Your task to perform on an android device: Is it going to rain tomorrow? Image 0: 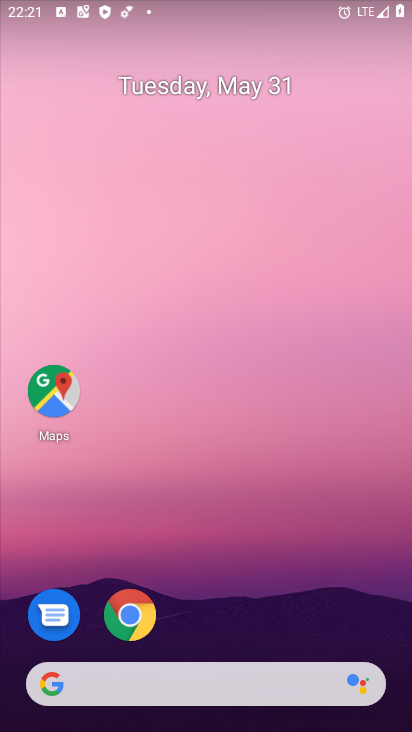
Step 0: drag from (14, 206) to (321, 257)
Your task to perform on an android device: Is it going to rain tomorrow? Image 1: 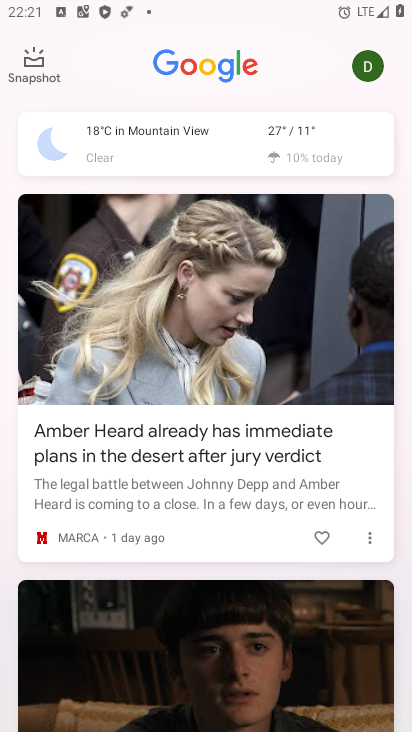
Step 1: click (305, 140)
Your task to perform on an android device: Is it going to rain tomorrow? Image 2: 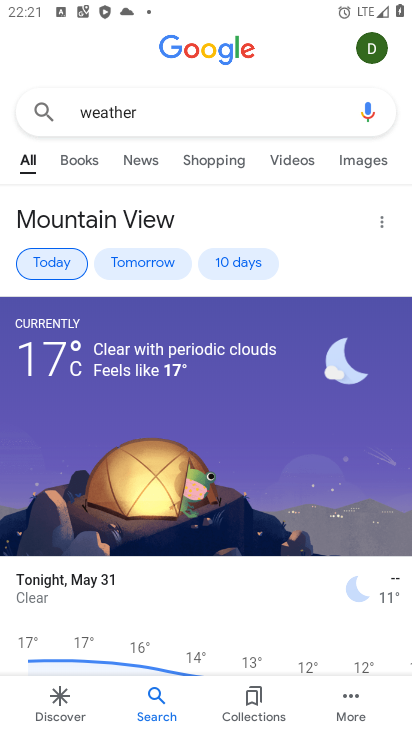
Step 2: click (156, 260)
Your task to perform on an android device: Is it going to rain tomorrow? Image 3: 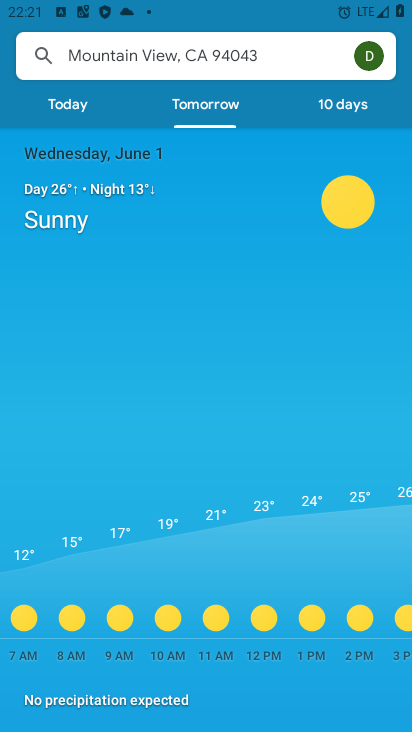
Step 3: task complete